Your task to perform on an android device: open chrome and create a bookmark for the current page Image 0: 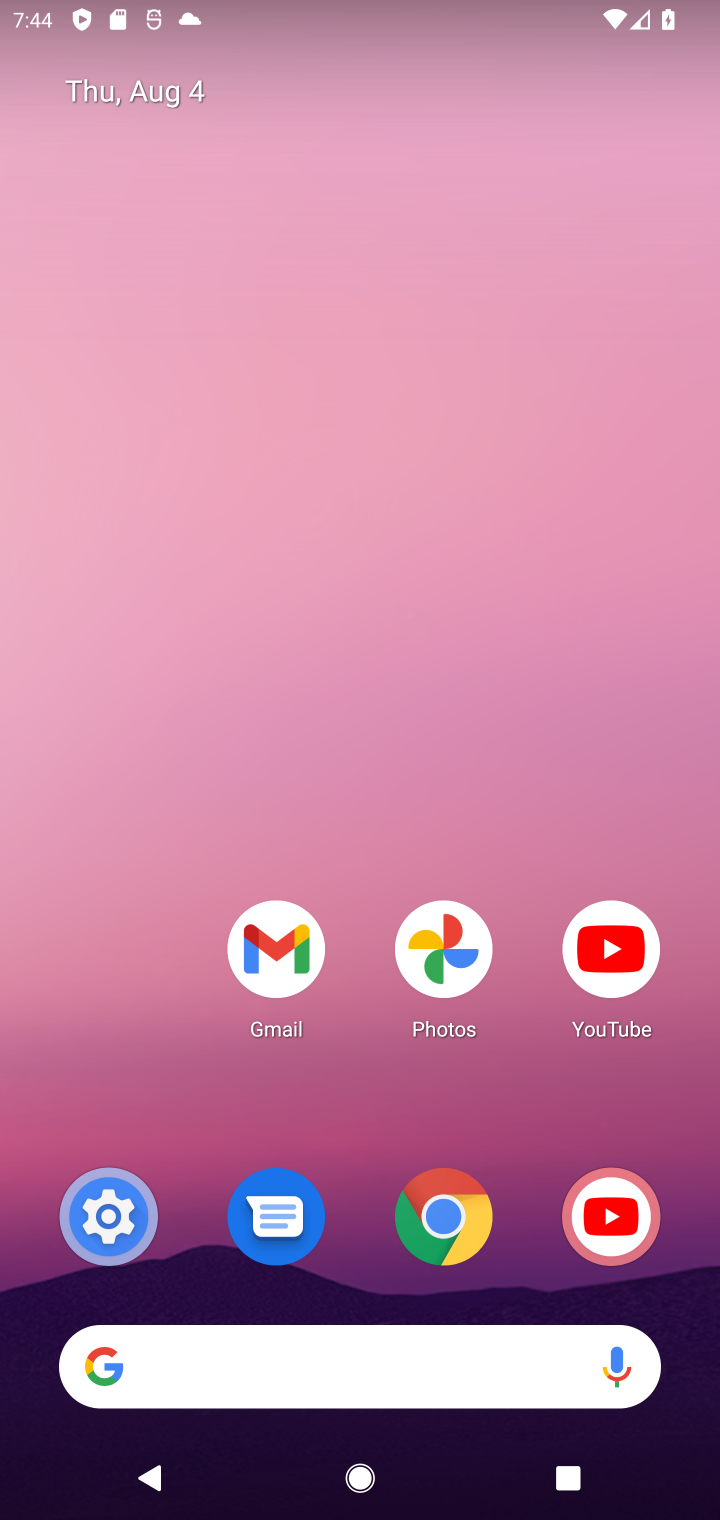
Step 0: click (455, 1228)
Your task to perform on an android device: open chrome and create a bookmark for the current page Image 1: 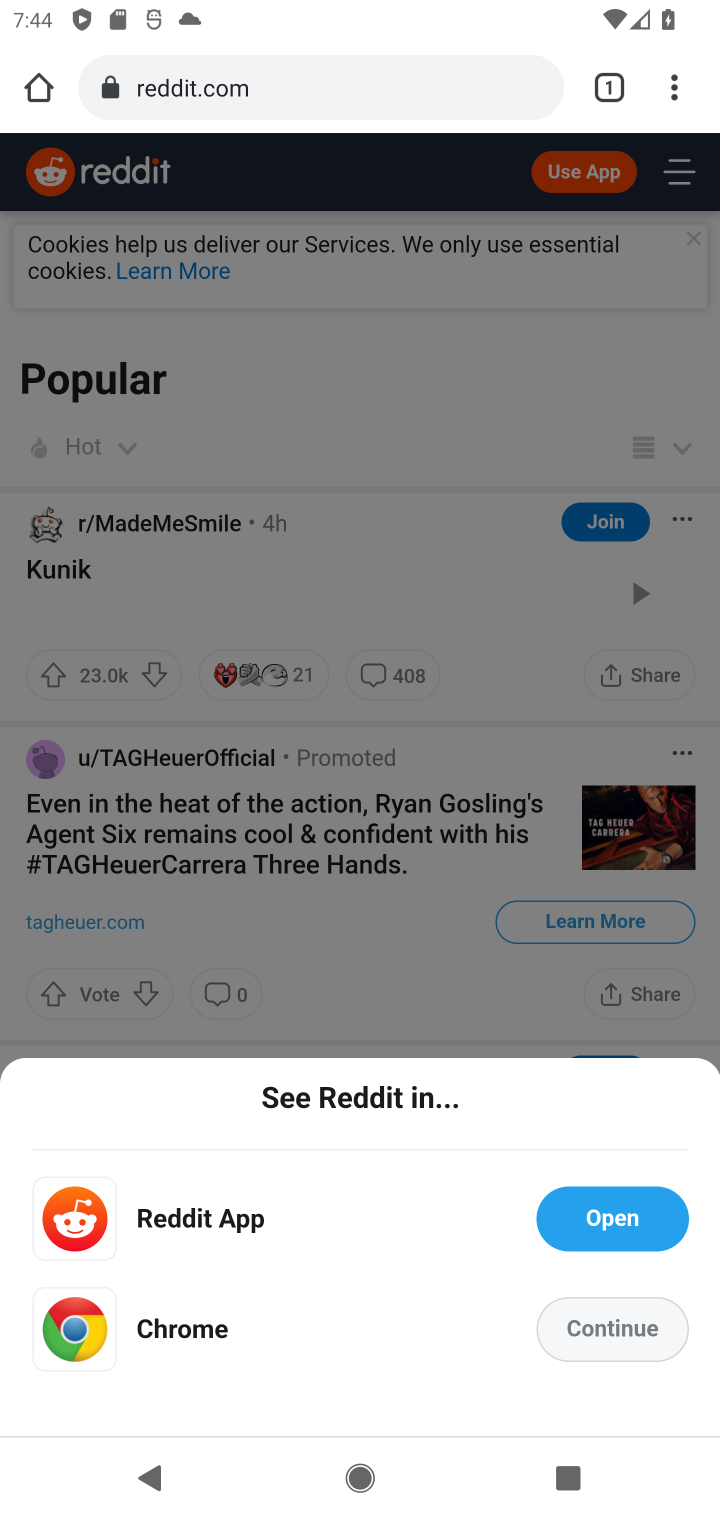
Step 1: click (670, 96)
Your task to perform on an android device: open chrome and create a bookmark for the current page Image 2: 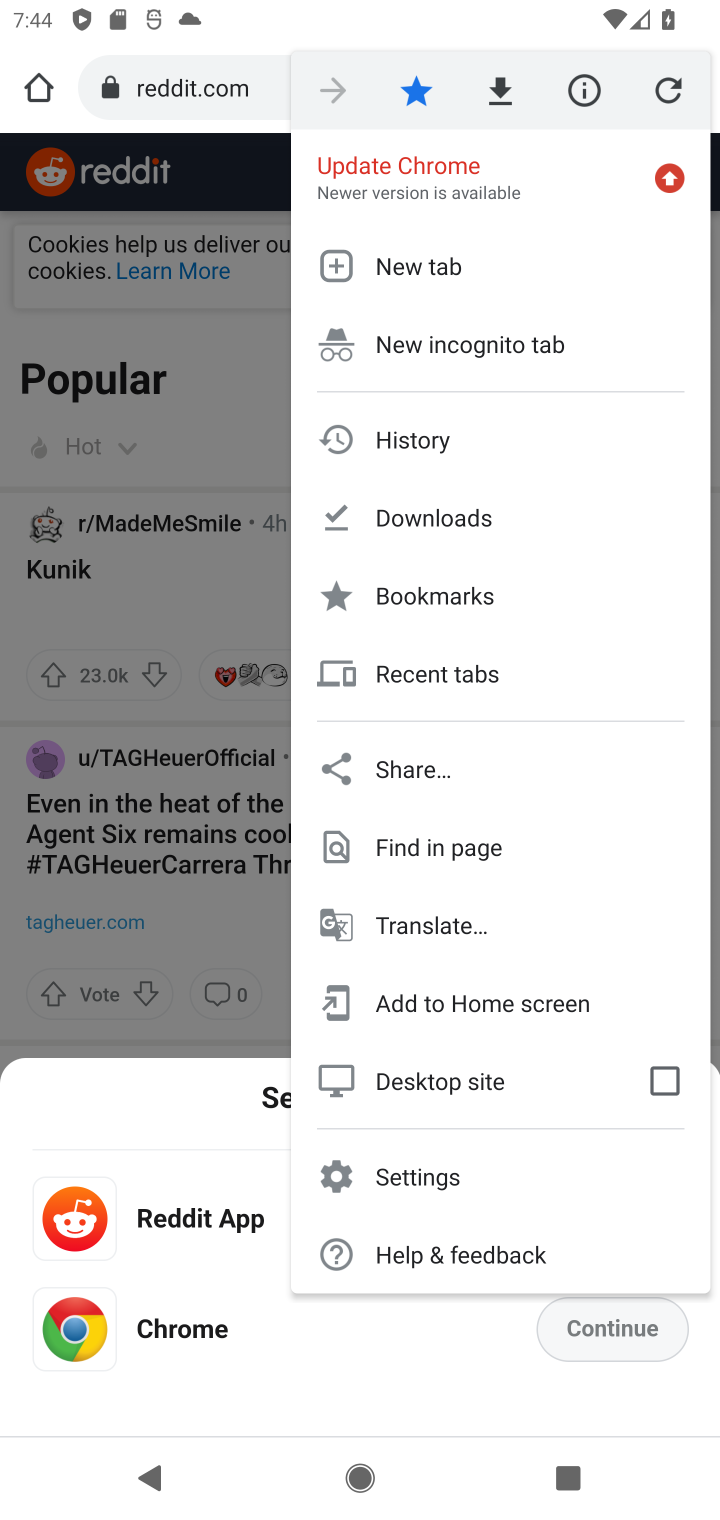
Step 2: task complete